Your task to perform on an android device: turn off priority inbox in the gmail app Image 0: 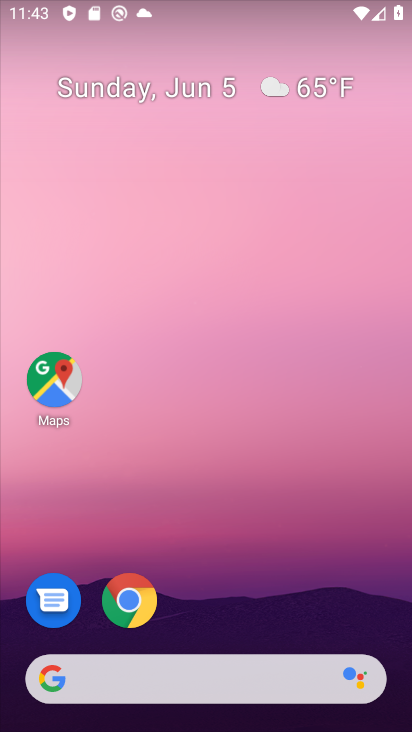
Step 0: drag from (382, 615) to (341, 229)
Your task to perform on an android device: turn off priority inbox in the gmail app Image 1: 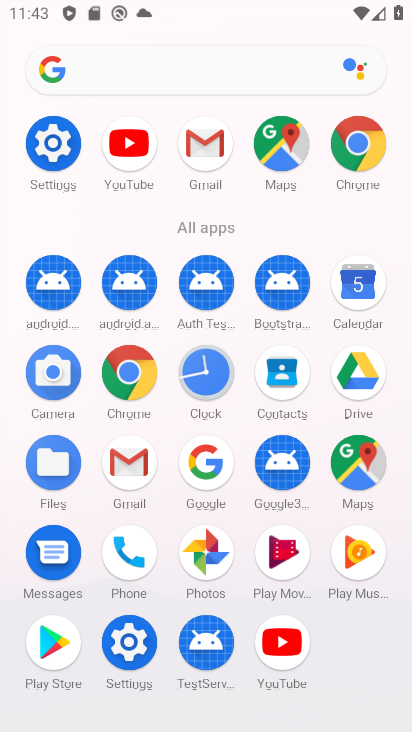
Step 1: click (208, 143)
Your task to perform on an android device: turn off priority inbox in the gmail app Image 2: 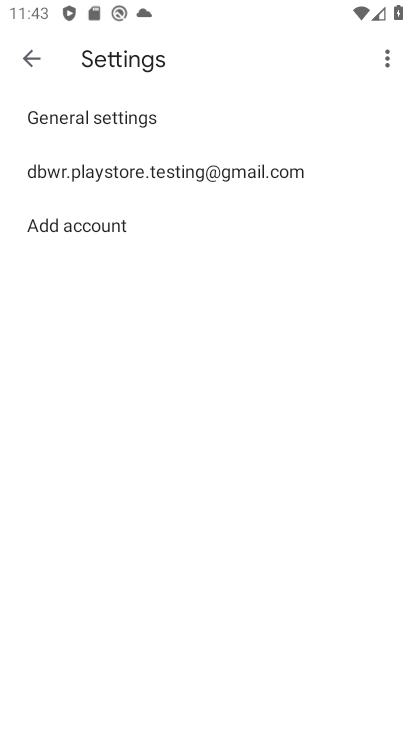
Step 2: click (91, 172)
Your task to perform on an android device: turn off priority inbox in the gmail app Image 3: 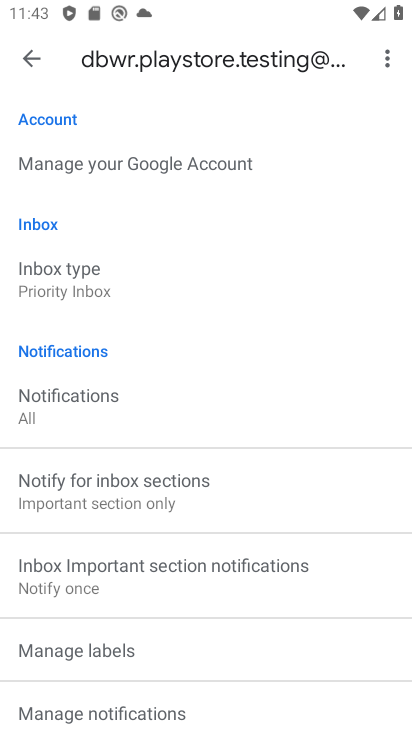
Step 3: click (77, 268)
Your task to perform on an android device: turn off priority inbox in the gmail app Image 4: 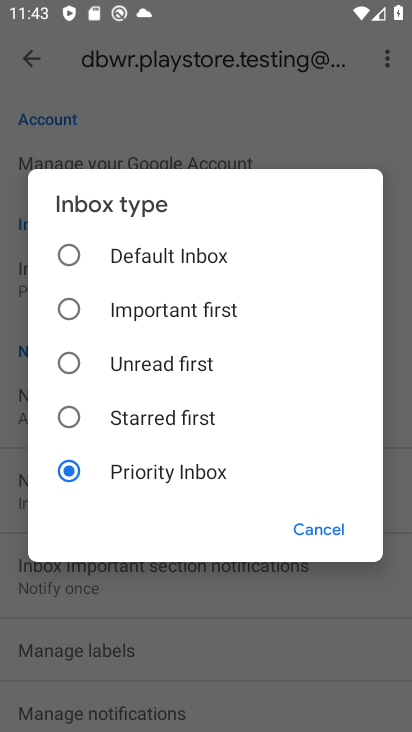
Step 4: click (66, 258)
Your task to perform on an android device: turn off priority inbox in the gmail app Image 5: 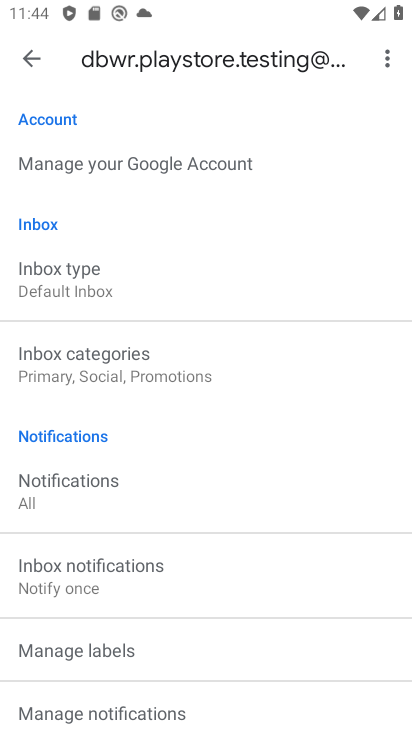
Step 5: task complete